Your task to perform on an android device: Open the Play Movies app and select the watchlist tab. Image 0: 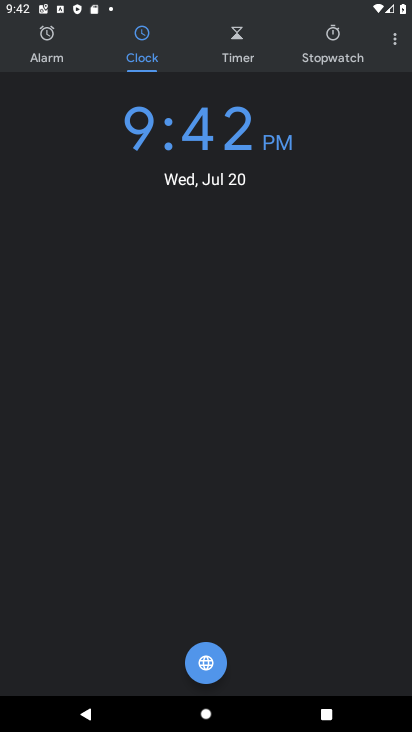
Step 0: press home button
Your task to perform on an android device: Open the Play Movies app and select the watchlist tab. Image 1: 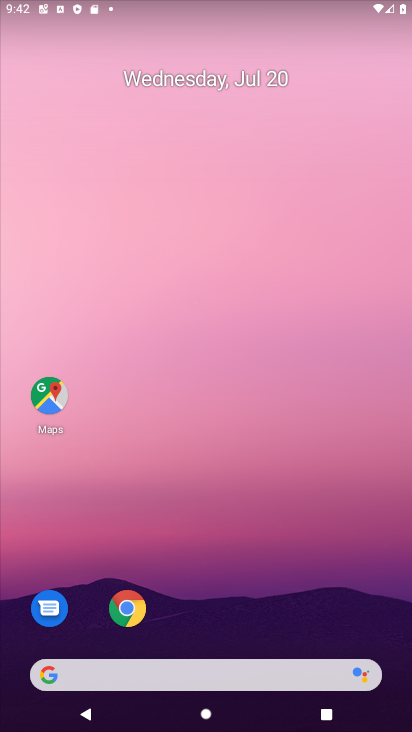
Step 1: drag from (185, 579) to (149, 4)
Your task to perform on an android device: Open the Play Movies app and select the watchlist tab. Image 2: 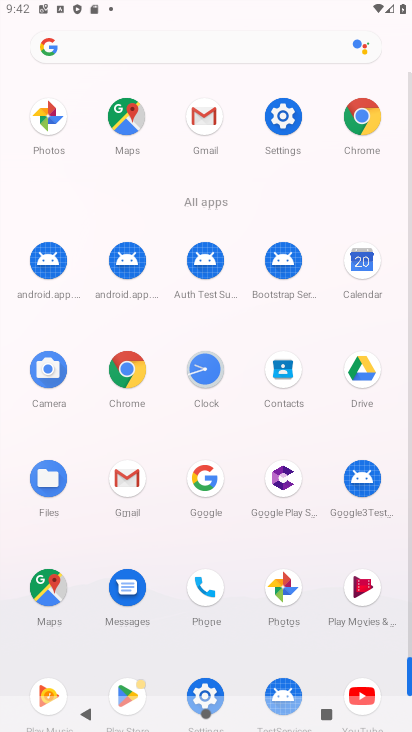
Step 2: click (368, 593)
Your task to perform on an android device: Open the Play Movies app and select the watchlist tab. Image 3: 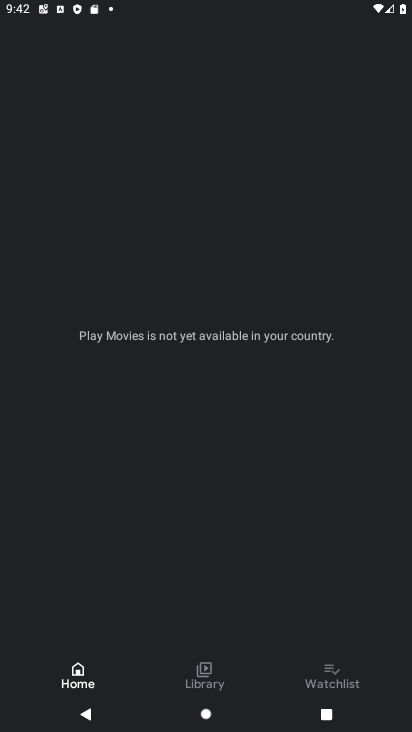
Step 3: click (315, 680)
Your task to perform on an android device: Open the Play Movies app and select the watchlist tab. Image 4: 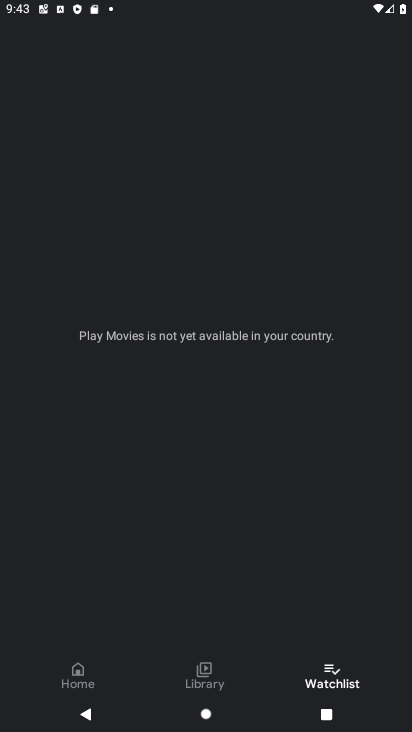
Step 4: task complete